Your task to perform on an android device: see creations saved in the google photos Image 0: 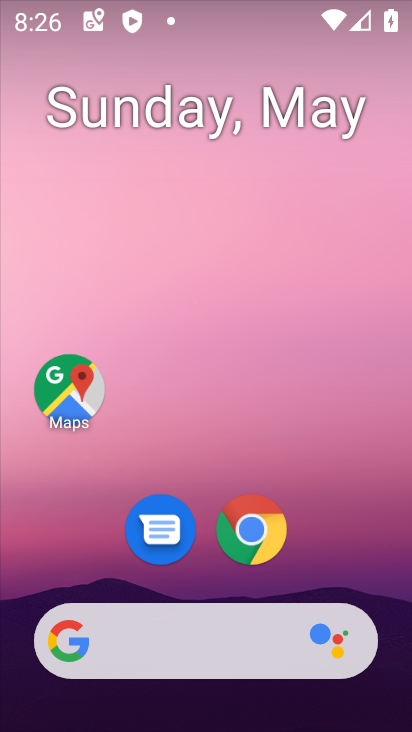
Step 0: drag from (368, 597) to (367, 20)
Your task to perform on an android device: see creations saved in the google photos Image 1: 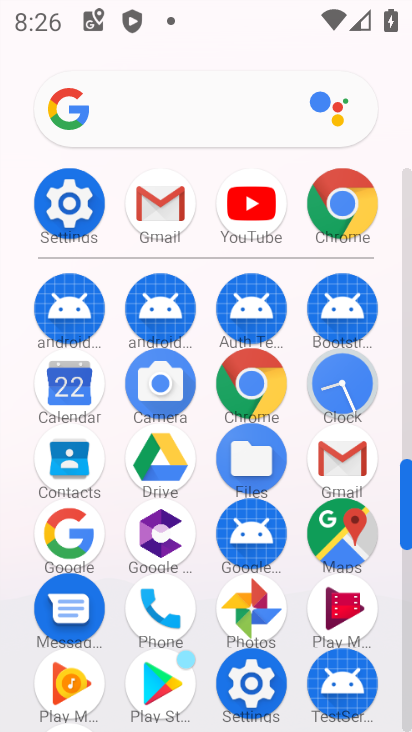
Step 1: click (250, 606)
Your task to perform on an android device: see creations saved in the google photos Image 2: 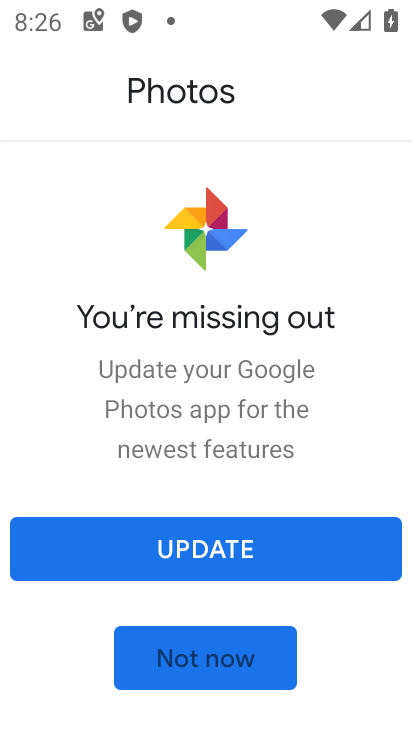
Step 2: click (179, 661)
Your task to perform on an android device: see creations saved in the google photos Image 3: 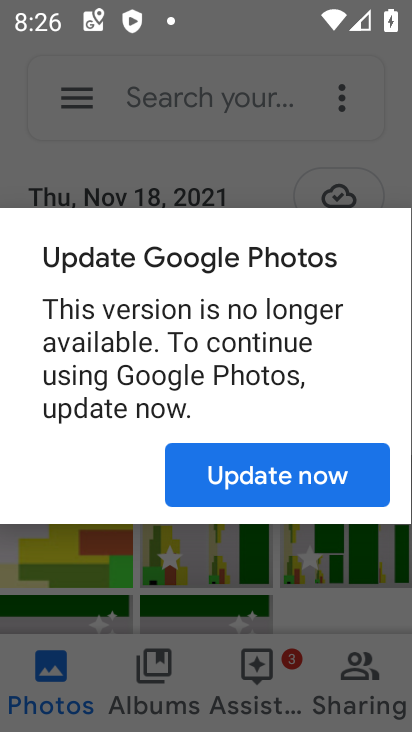
Step 3: click (256, 478)
Your task to perform on an android device: see creations saved in the google photos Image 4: 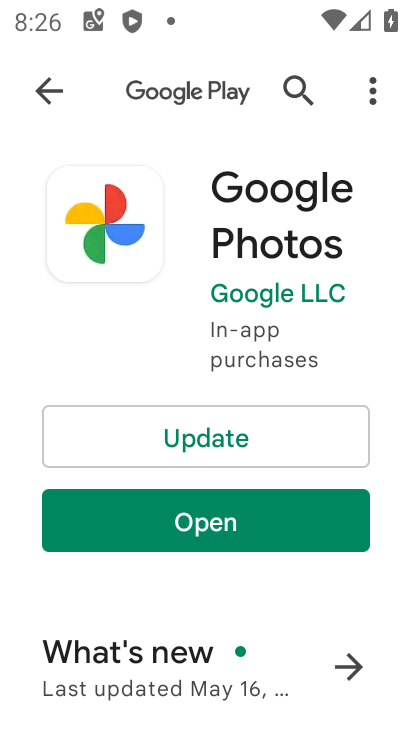
Step 4: click (205, 523)
Your task to perform on an android device: see creations saved in the google photos Image 5: 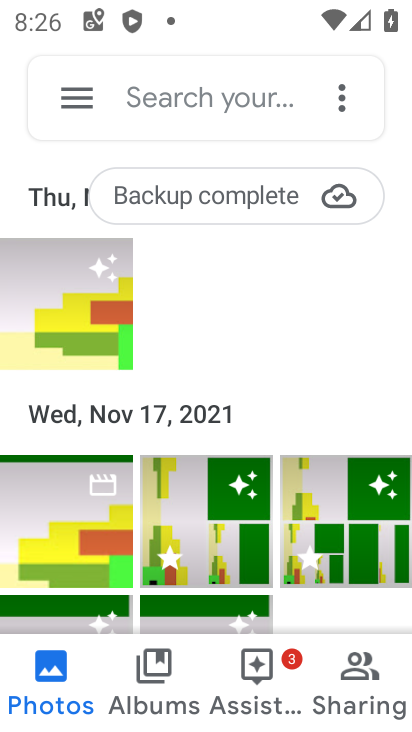
Step 5: click (136, 94)
Your task to perform on an android device: see creations saved in the google photos Image 6: 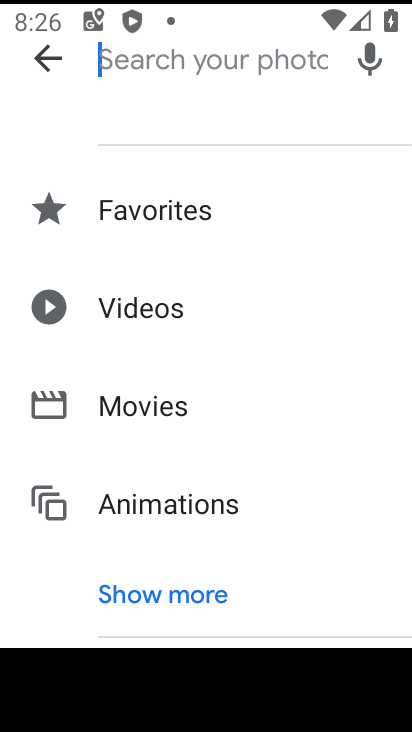
Step 6: click (134, 597)
Your task to perform on an android device: see creations saved in the google photos Image 7: 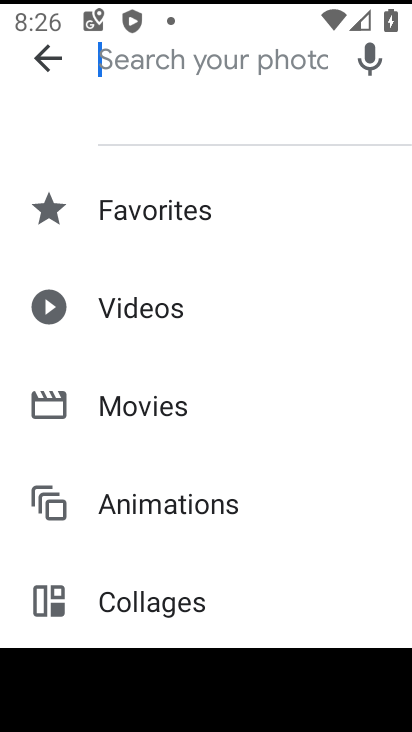
Step 7: drag from (287, 570) to (266, 141)
Your task to perform on an android device: see creations saved in the google photos Image 8: 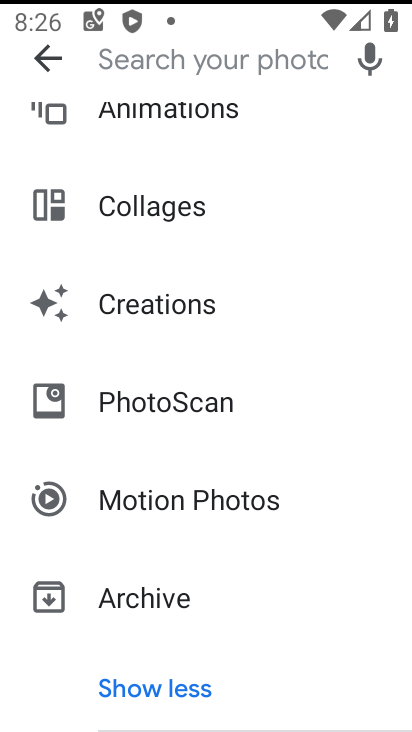
Step 8: click (123, 303)
Your task to perform on an android device: see creations saved in the google photos Image 9: 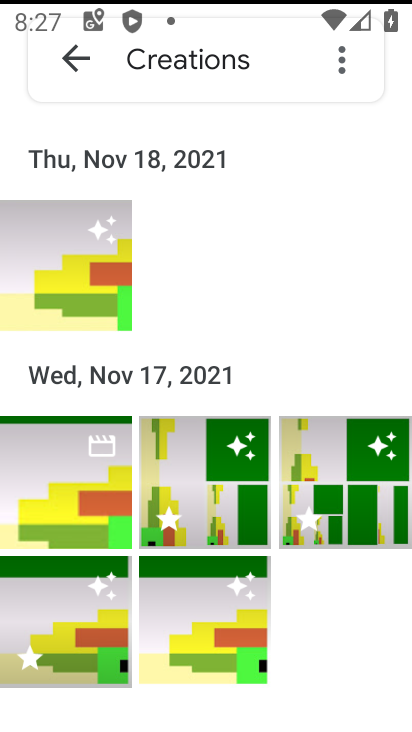
Step 9: task complete